Your task to perform on an android device: Set the phone to "Do not disturb". Image 0: 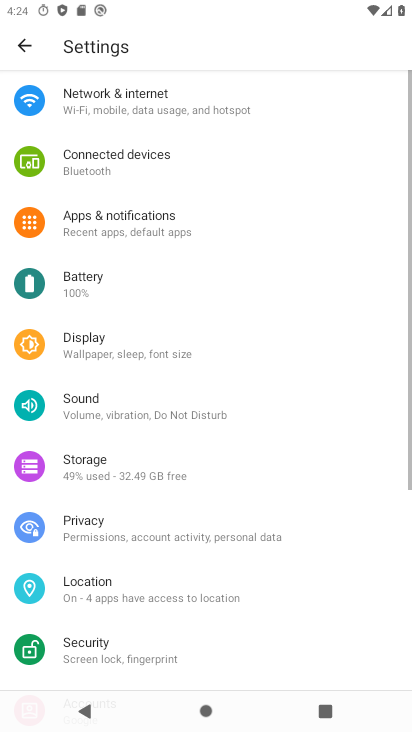
Step 0: drag from (187, 502) to (180, 358)
Your task to perform on an android device: Set the phone to "Do not disturb". Image 1: 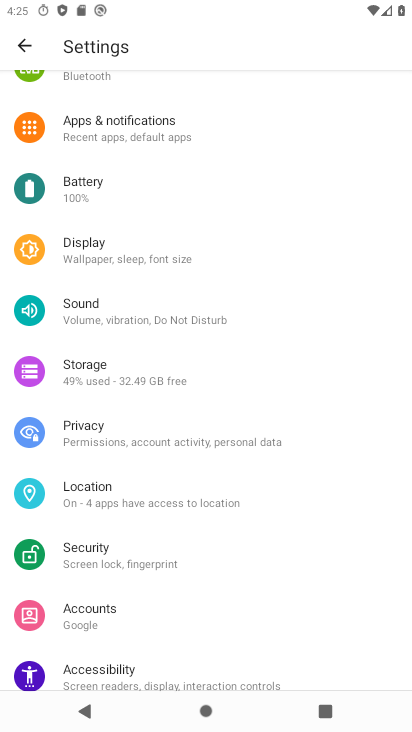
Step 1: click (156, 308)
Your task to perform on an android device: Set the phone to "Do not disturb". Image 2: 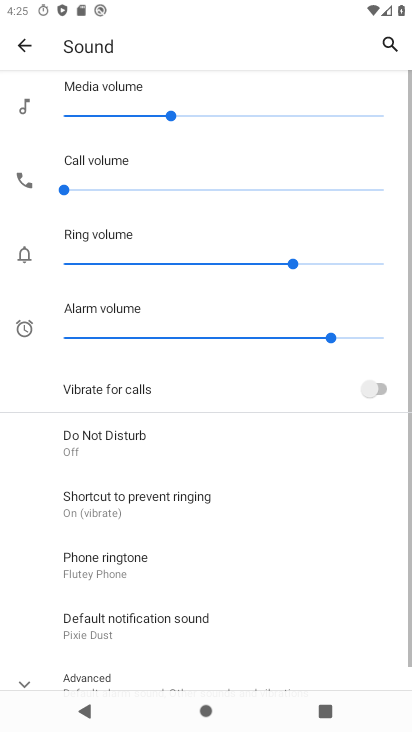
Step 2: click (145, 441)
Your task to perform on an android device: Set the phone to "Do not disturb". Image 3: 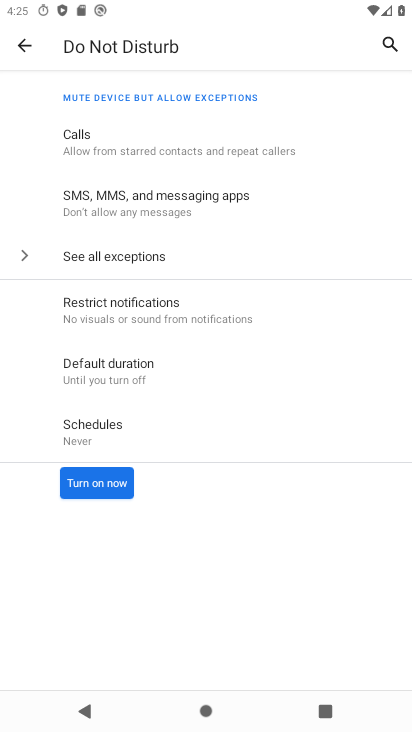
Step 3: click (103, 482)
Your task to perform on an android device: Set the phone to "Do not disturb". Image 4: 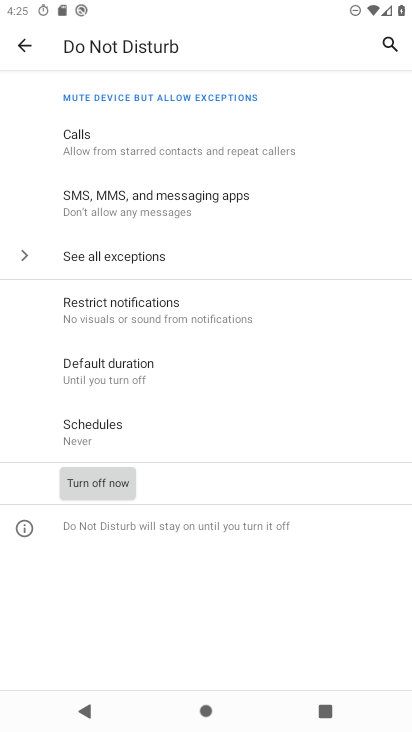
Step 4: task complete